Your task to perform on an android device: open app "Facebook Lite" Image 0: 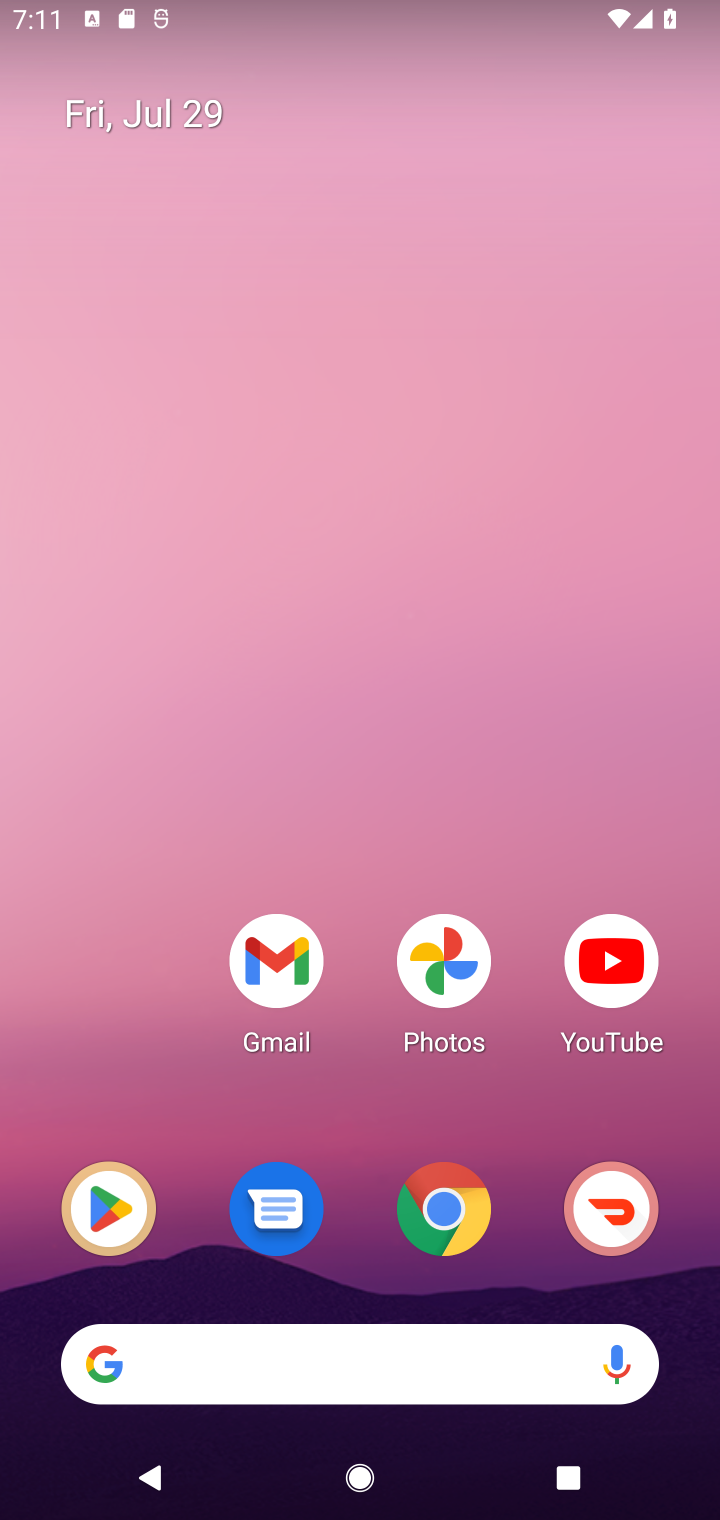
Step 0: click (111, 1227)
Your task to perform on an android device: open app "Facebook Lite" Image 1: 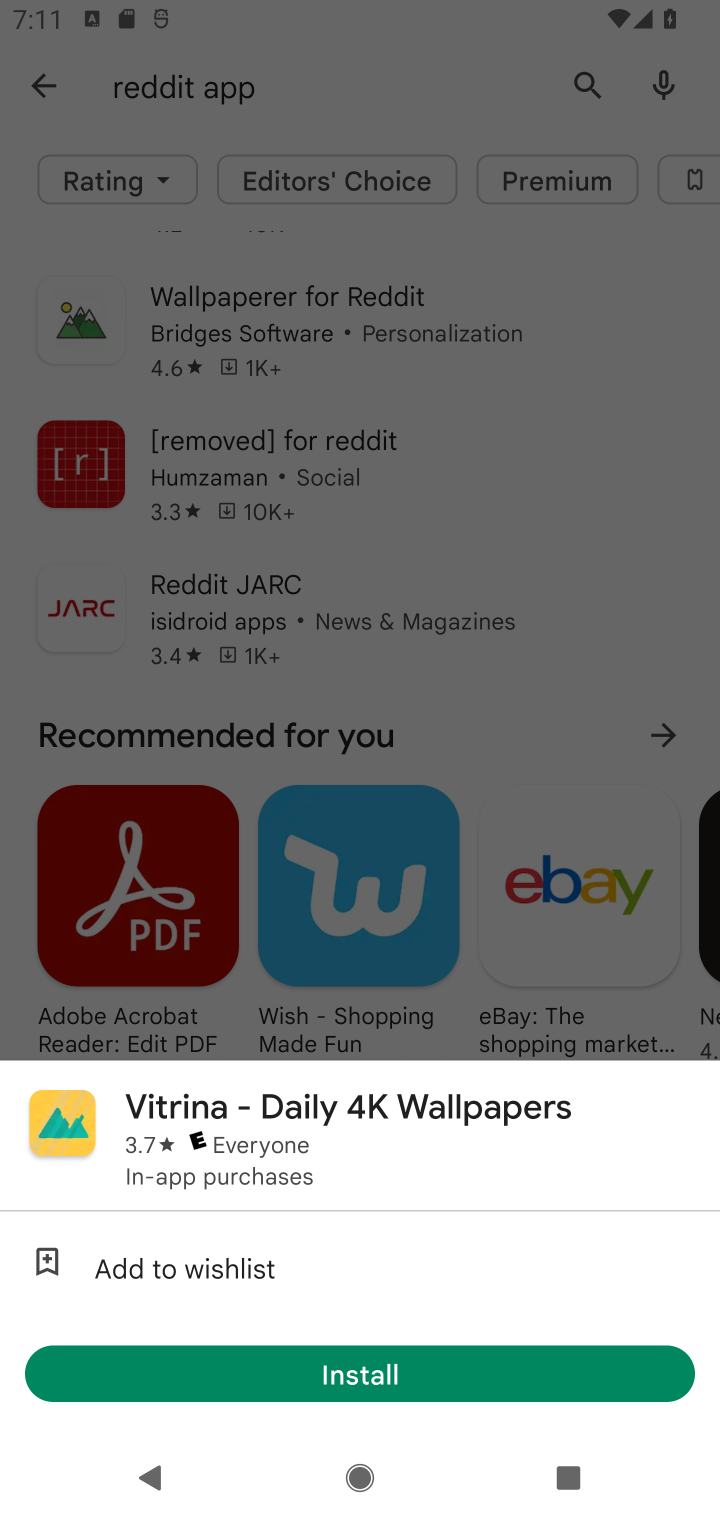
Step 1: click (578, 93)
Your task to perform on an android device: open app "Facebook Lite" Image 2: 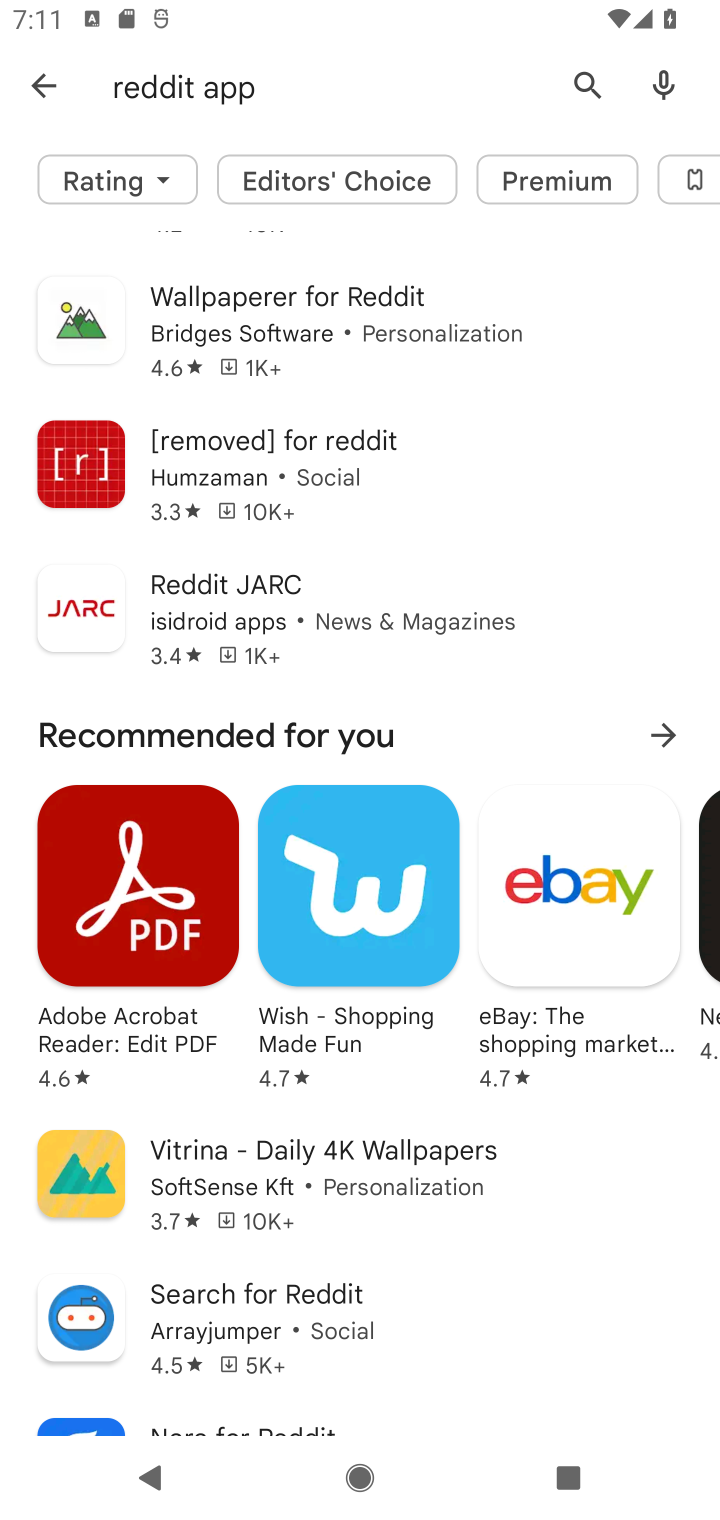
Step 2: click (591, 87)
Your task to perform on an android device: open app "Facebook Lite" Image 3: 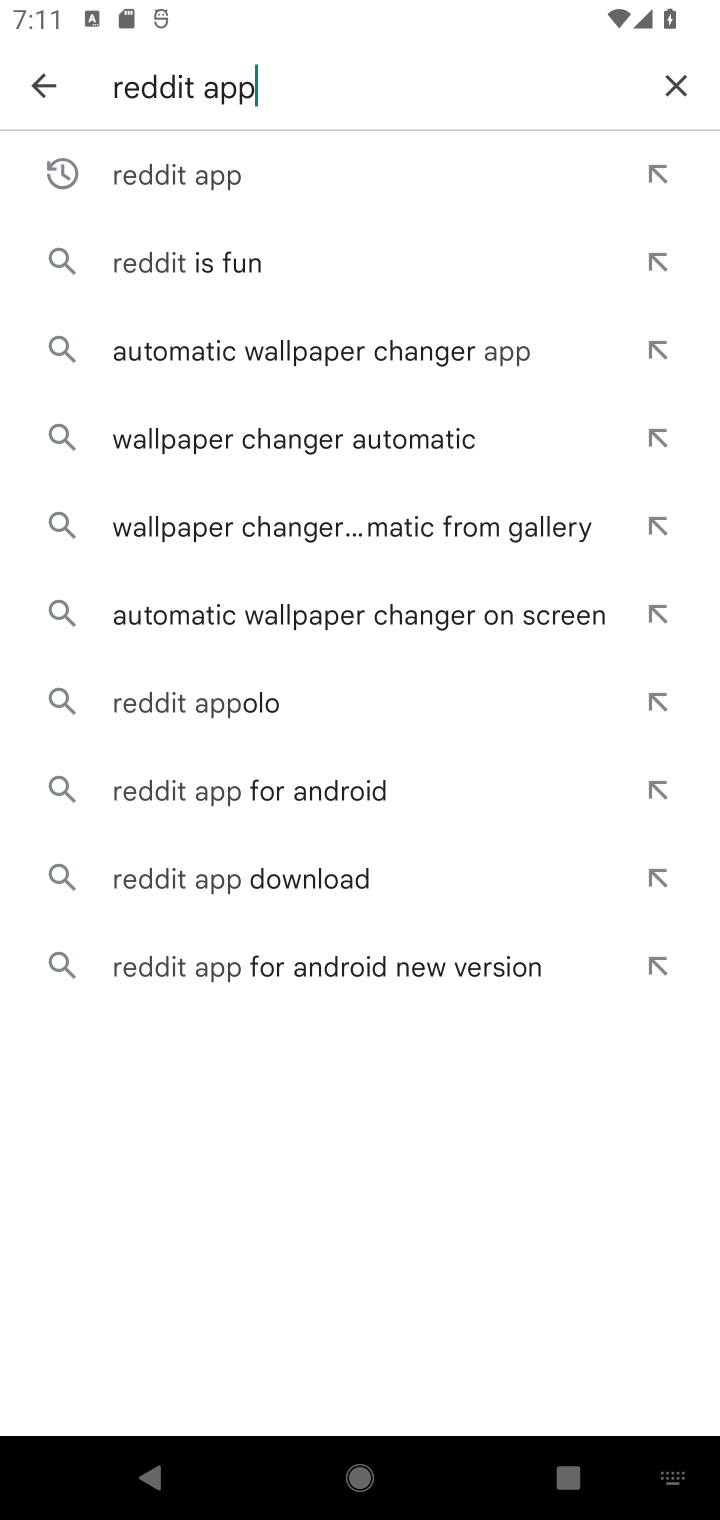
Step 3: click (687, 74)
Your task to perform on an android device: open app "Facebook Lite" Image 4: 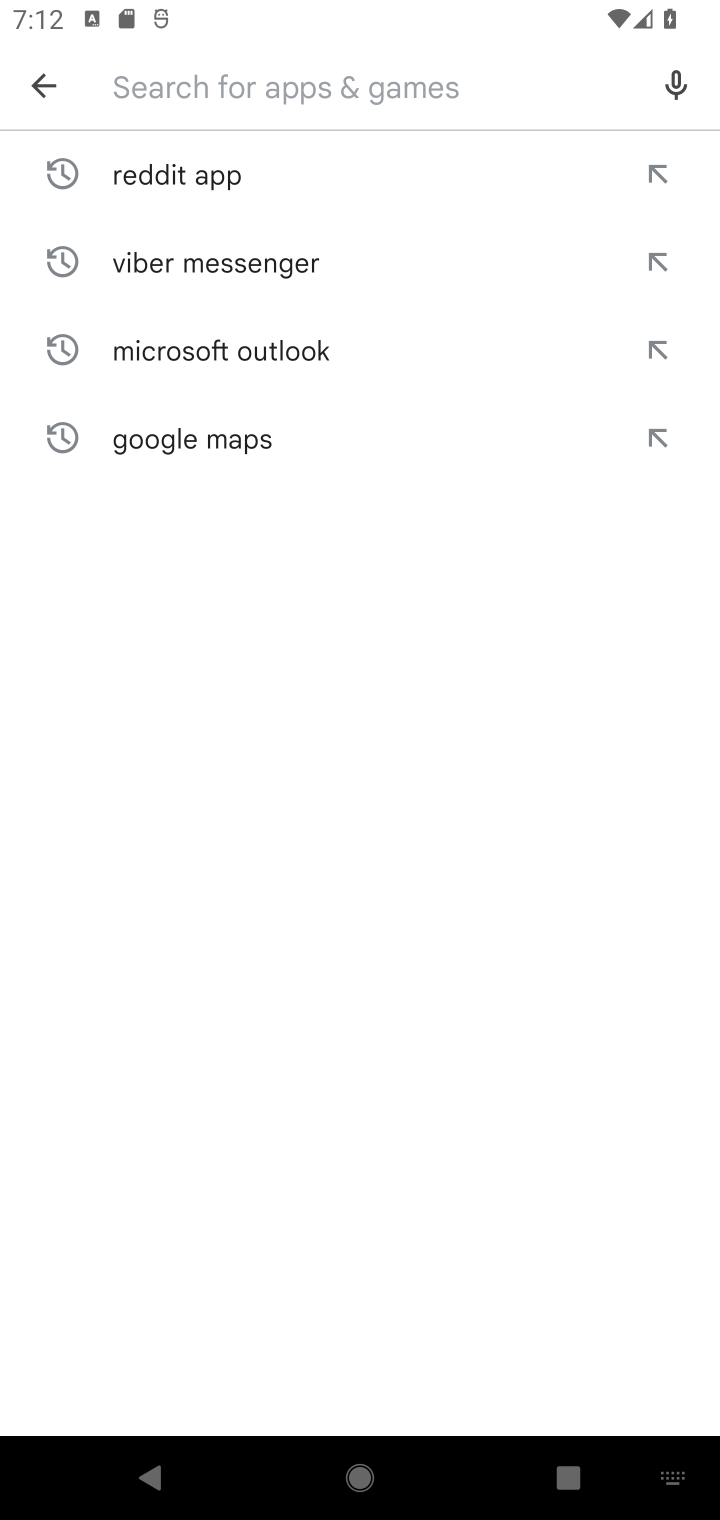
Step 4: type "Facebook Lite"
Your task to perform on an android device: open app "Facebook Lite" Image 5: 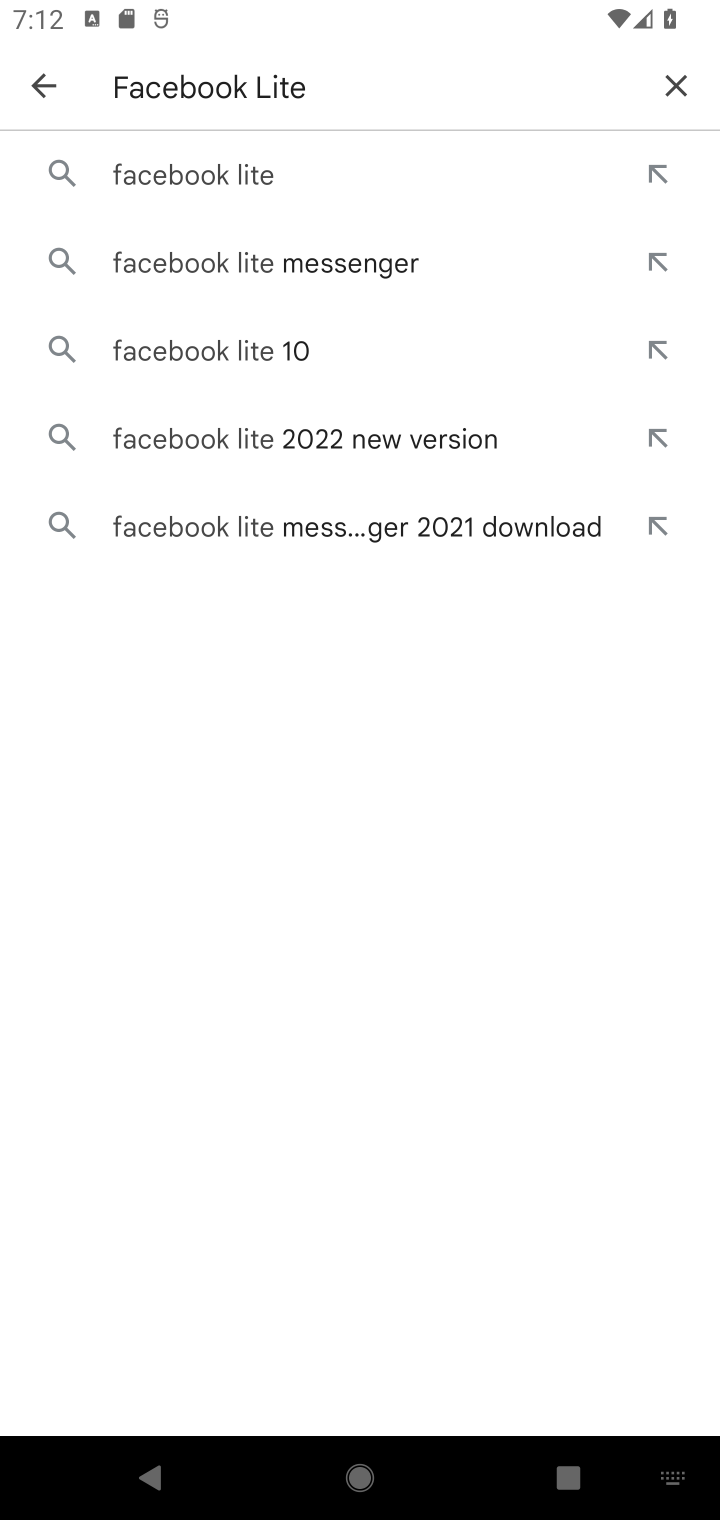
Step 5: click (219, 190)
Your task to perform on an android device: open app "Facebook Lite" Image 6: 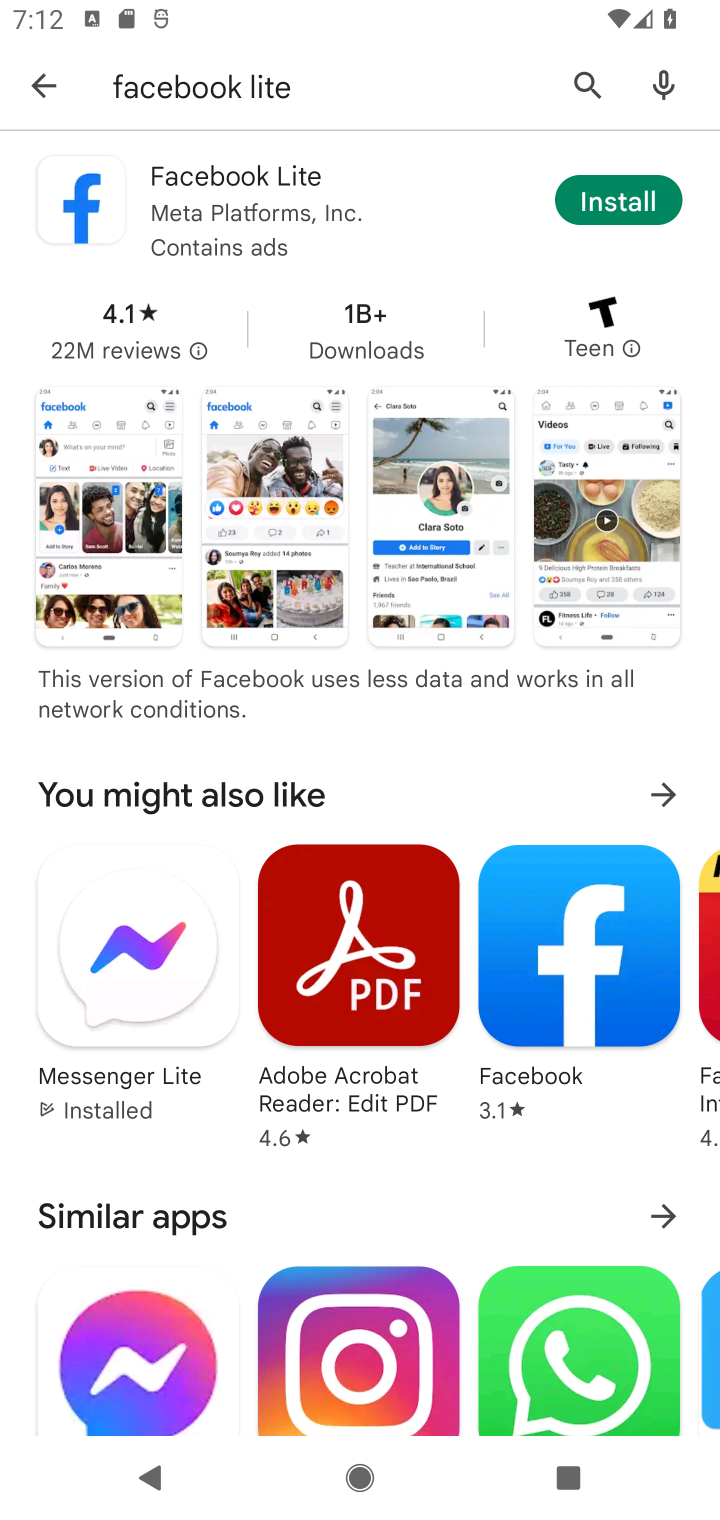
Step 6: task complete